Your task to perform on an android device: uninstall "Pinterest" Image 0: 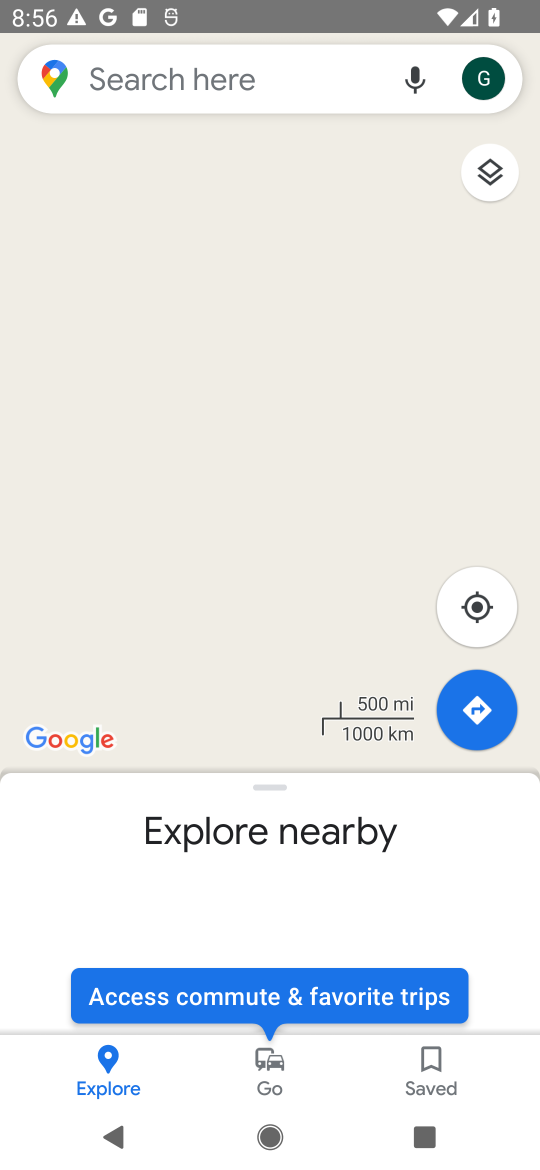
Step 0: press home button
Your task to perform on an android device: uninstall "Pinterest" Image 1: 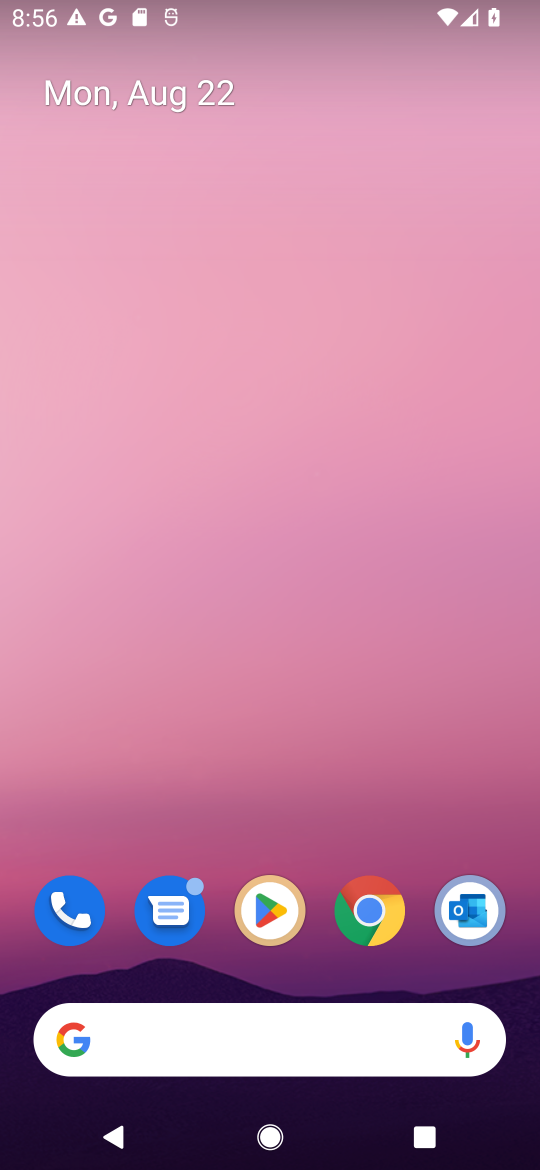
Step 1: click (248, 910)
Your task to perform on an android device: uninstall "Pinterest" Image 2: 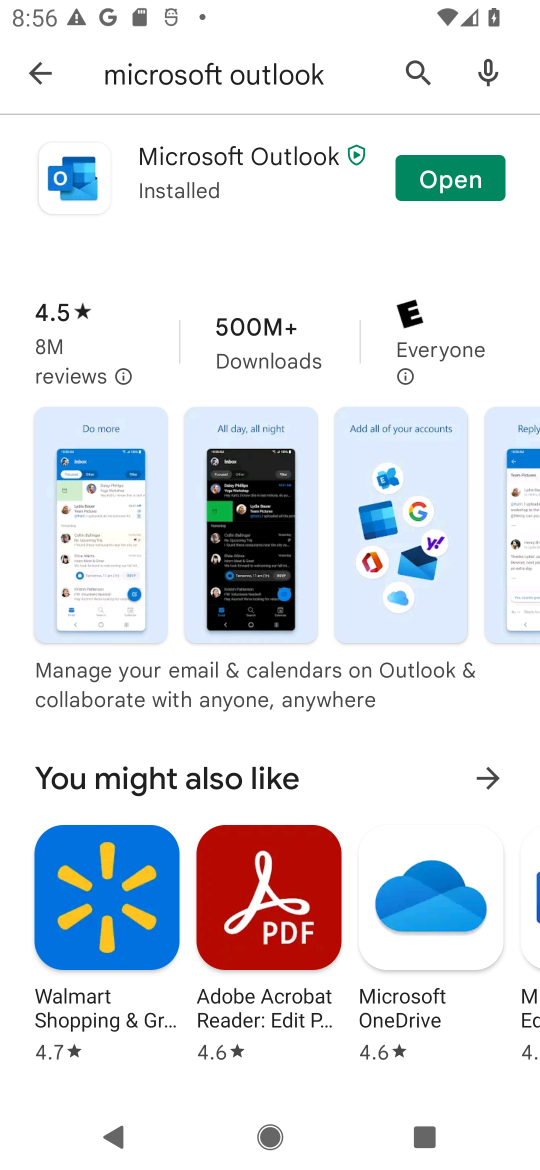
Step 2: click (406, 68)
Your task to perform on an android device: uninstall "Pinterest" Image 3: 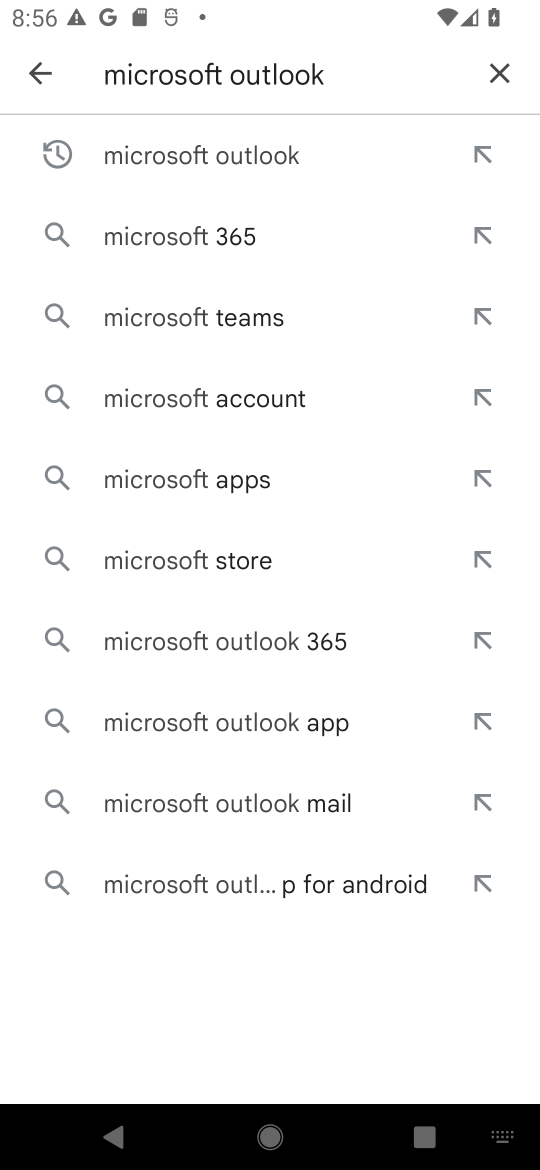
Step 3: click (512, 80)
Your task to perform on an android device: uninstall "Pinterest" Image 4: 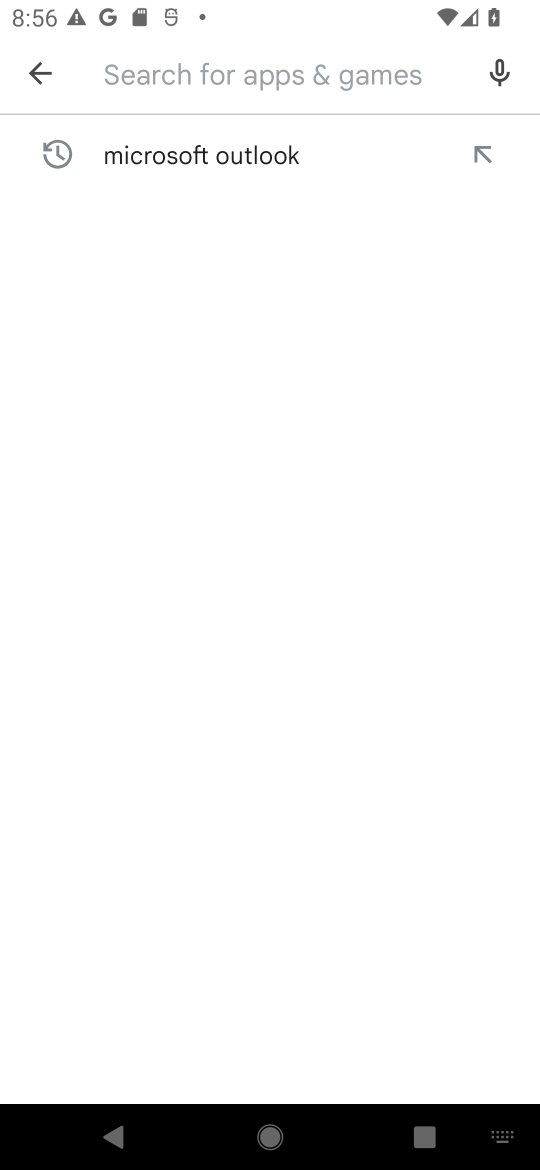
Step 4: type "Pinterest"
Your task to perform on an android device: uninstall "Pinterest" Image 5: 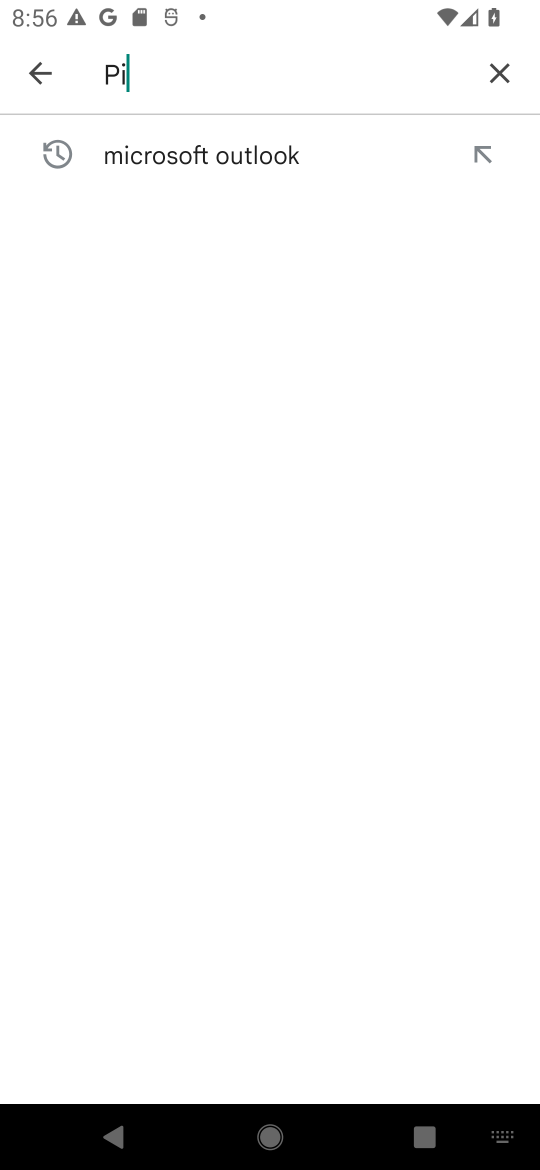
Step 5: type ""
Your task to perform on an android device: uninstall "Pinterest" Image 6: 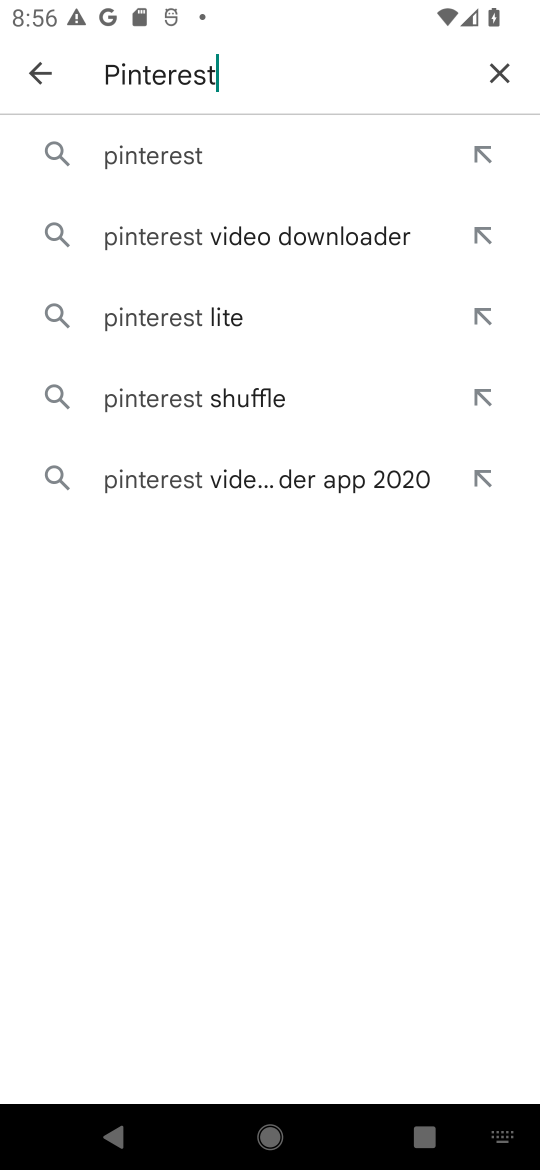
Step 6: click (256, 160)
Your task to perform on an android device: uninstall "Pinterest" Image 7: 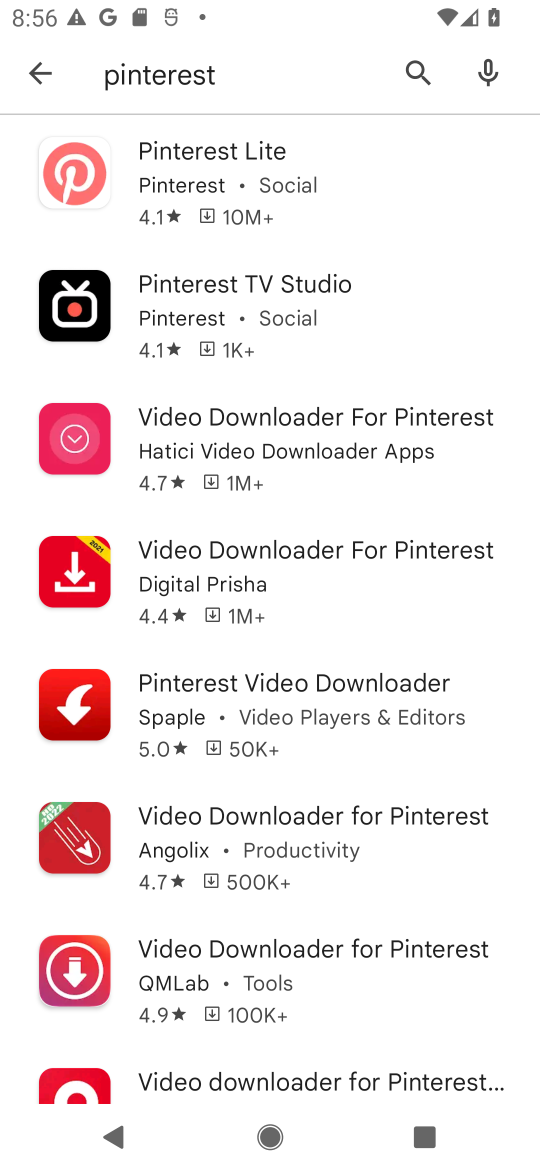
Step 7: click (392, 176)
Your task to perform on an android device: uninstall "Pinterest" Image 8: 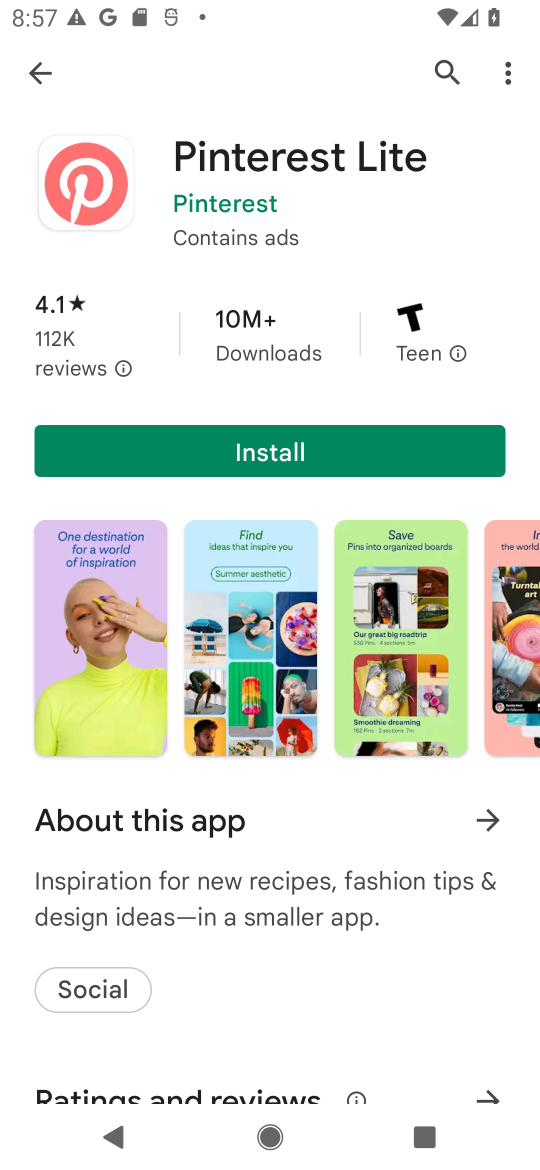
Step 8: task complete